Your task to perform on an android device: Clear all items from cart on walmart.com. Search for "macbook" on walmart.com, select the first entry, add it to the cart, then select checkout. Image 0: 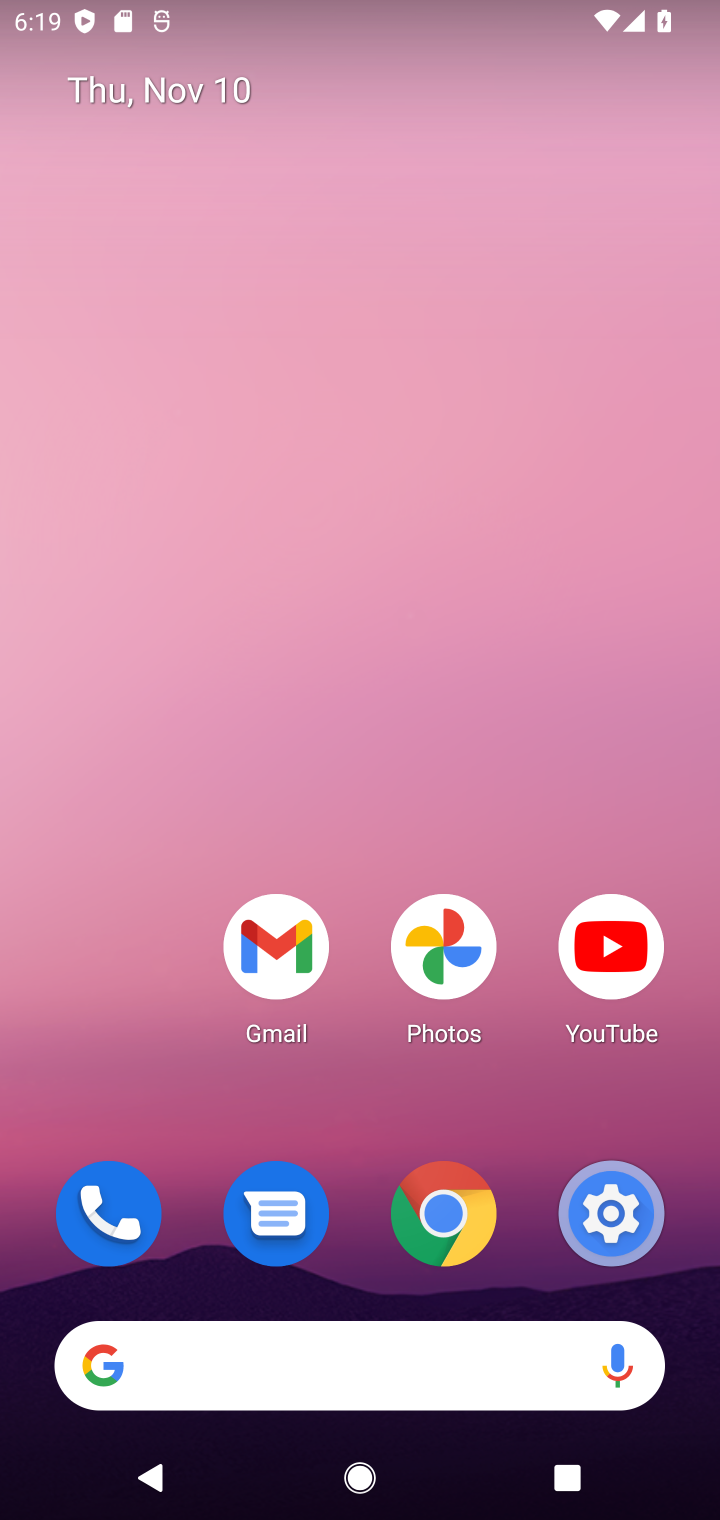
Step 0: drag from (476, 1363) to (584, 154)
Your task to perform on an android device: Clear all items from cart on walmart.com. Search for "macbook" on walmart.com, select the first entry, add it to the cart, then select checkout. Image 1: 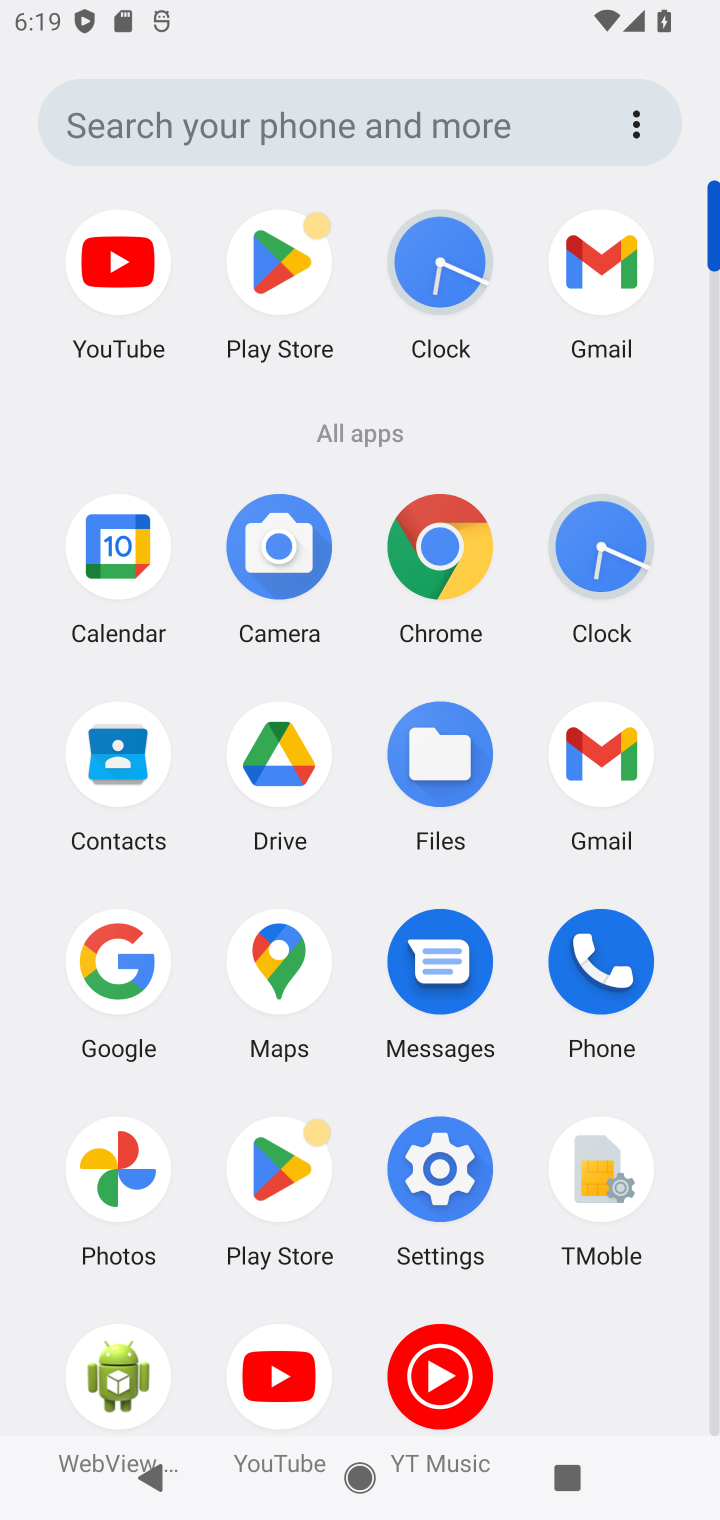
Step 1: click (429, 550)
Your task to perform on an android device: Clear all items from cart on walmart.com. Search for "macbook" on walmart.com, select the first entry, add it to the cart, then select checkout. Image 2: 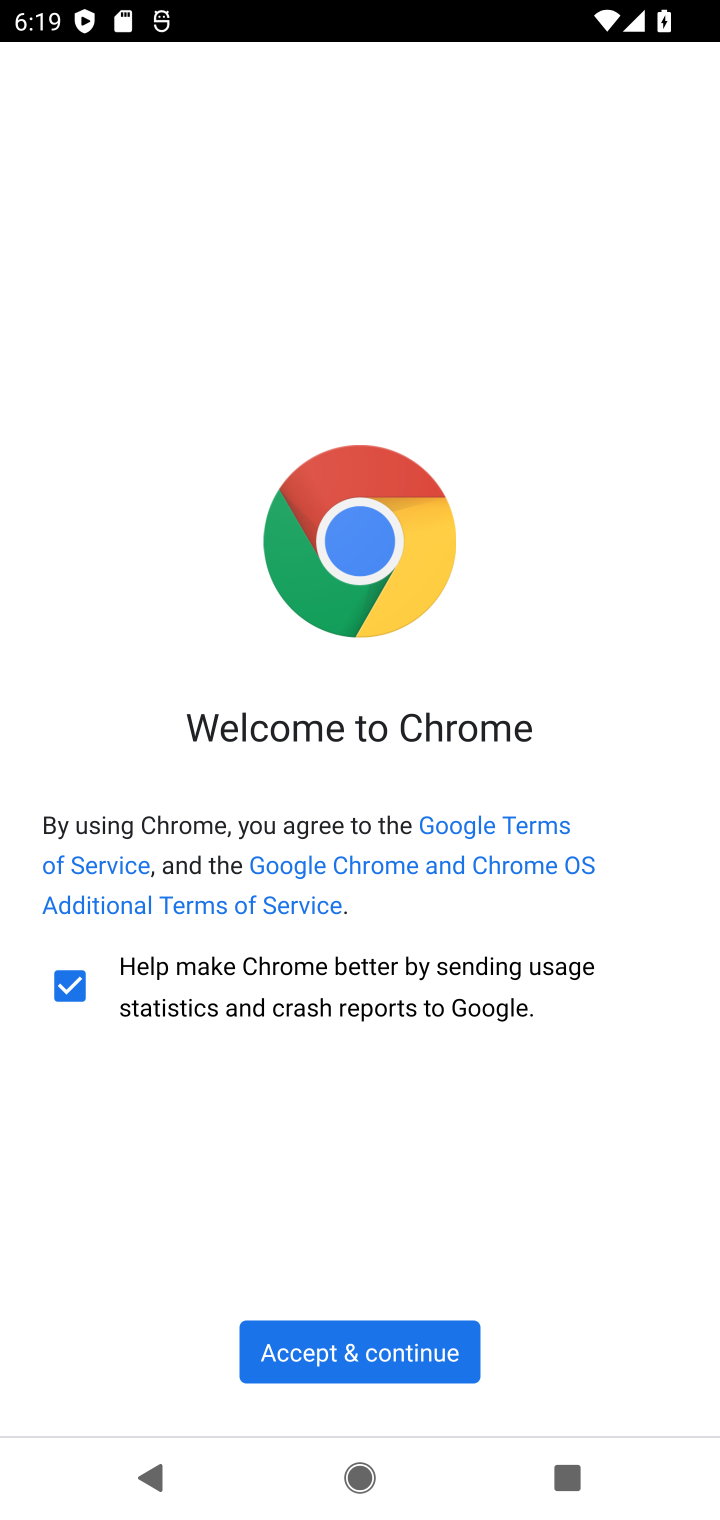
Step 2: click (347, 1358)
Your task to perform on an android device: Clear all items from cart on walmart.com. Search for "macbook" on walmart.com, select the first entry, add it to the cart, then select checkout. Image 3: 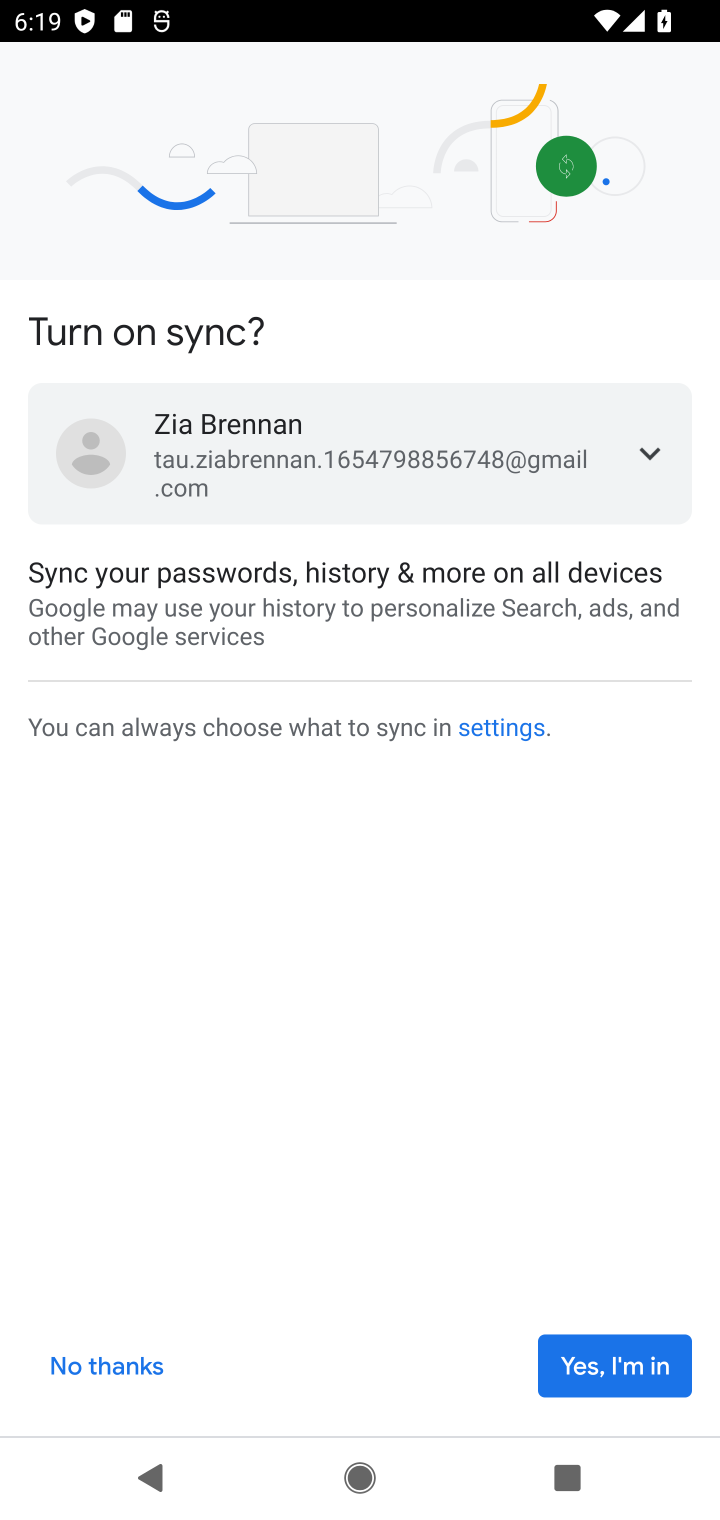
Step 3: click (653, 1369)
Your task to perform on an android device: Clear all items from cart on walmart.com. Search for "macbook" on walmart.com, select the first entry, add it to the cart, then select checkout. Image 4: 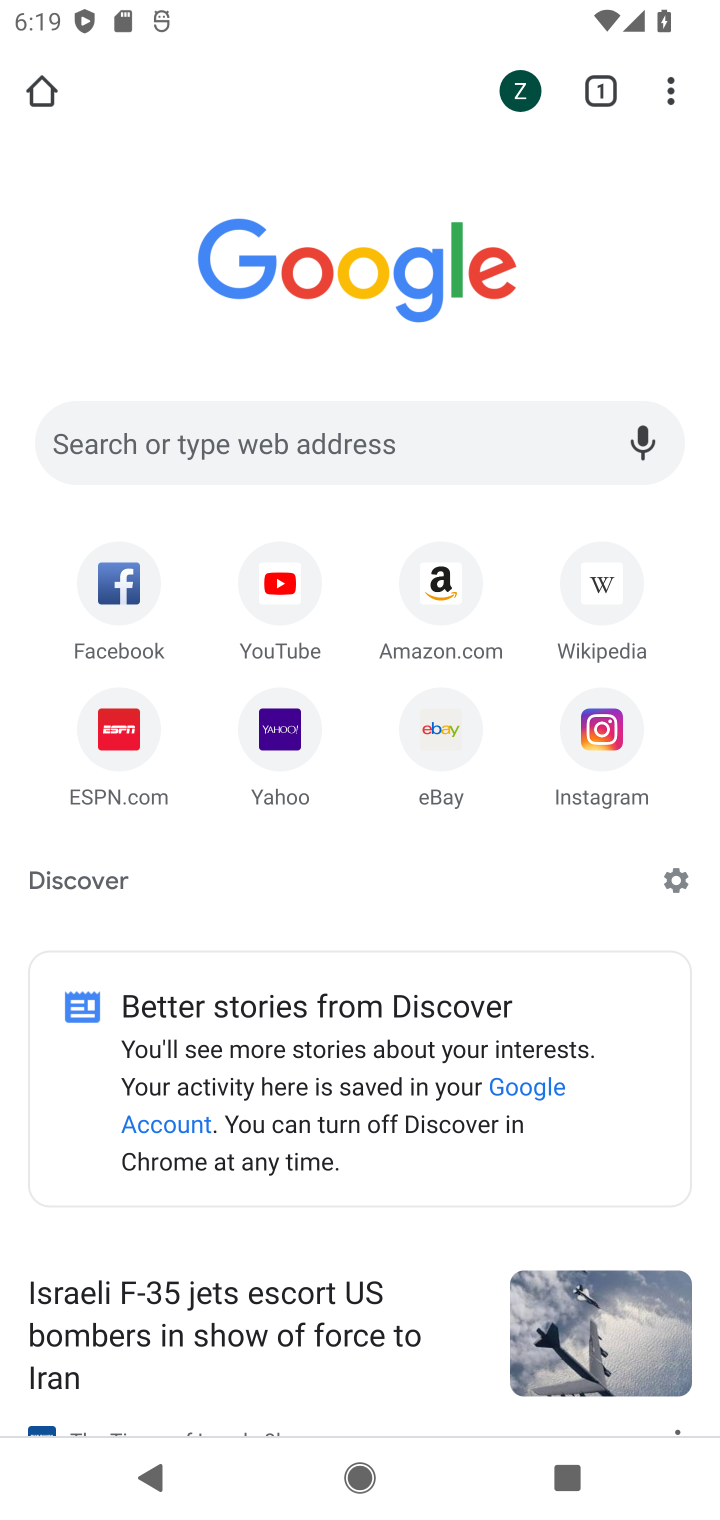
Step 4: click (403, 439)
Your task to perform on an android device: Clear all items from cart on walmart.com. Search for "macbook" on walmart.com, select the first entry, add it to the cart, then select checkout. Image 5: 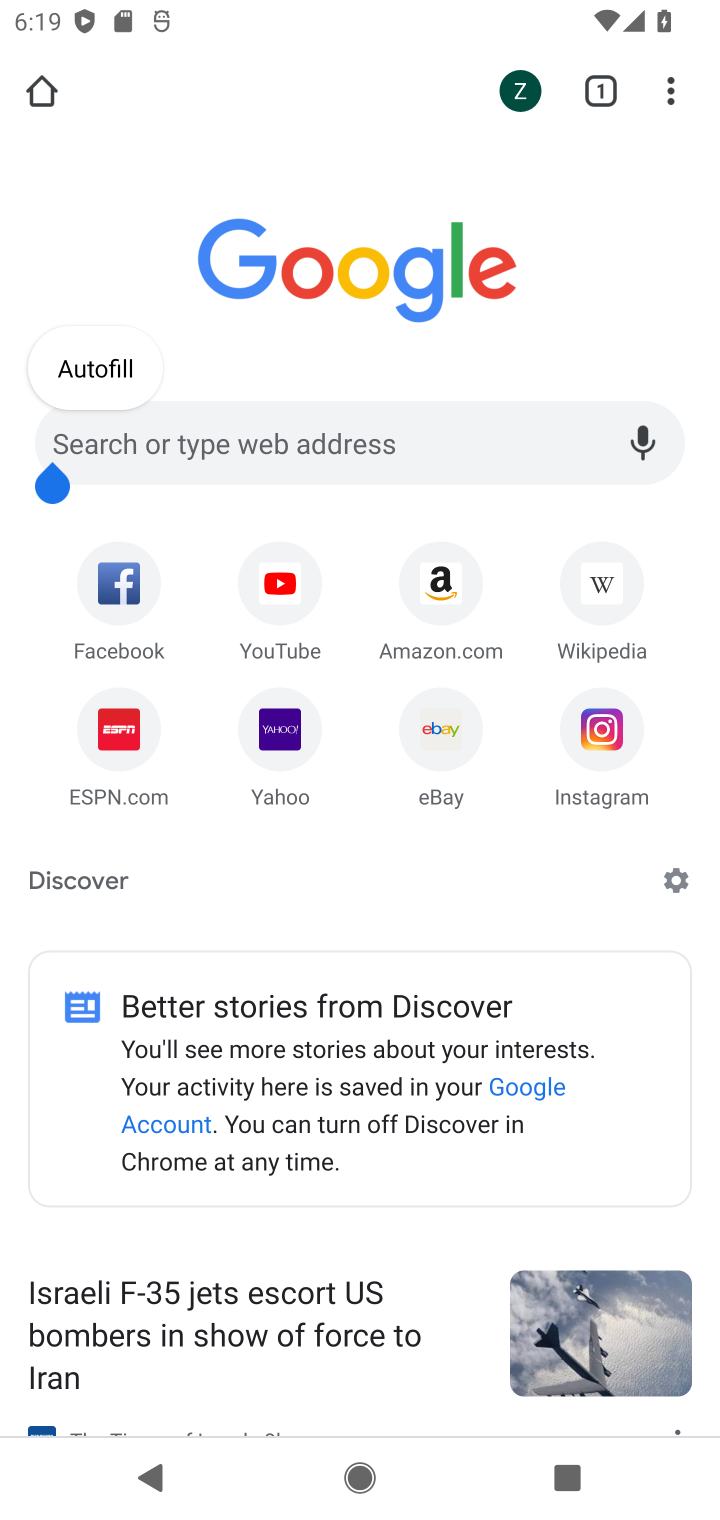
Step 5: click (403, 439)
Your task to perform on an android device: Clear all items from cart on walmart.com. Search for "macbook" on walmart.com, select the first entry, add it to the cart, then select checkout. Image 6: 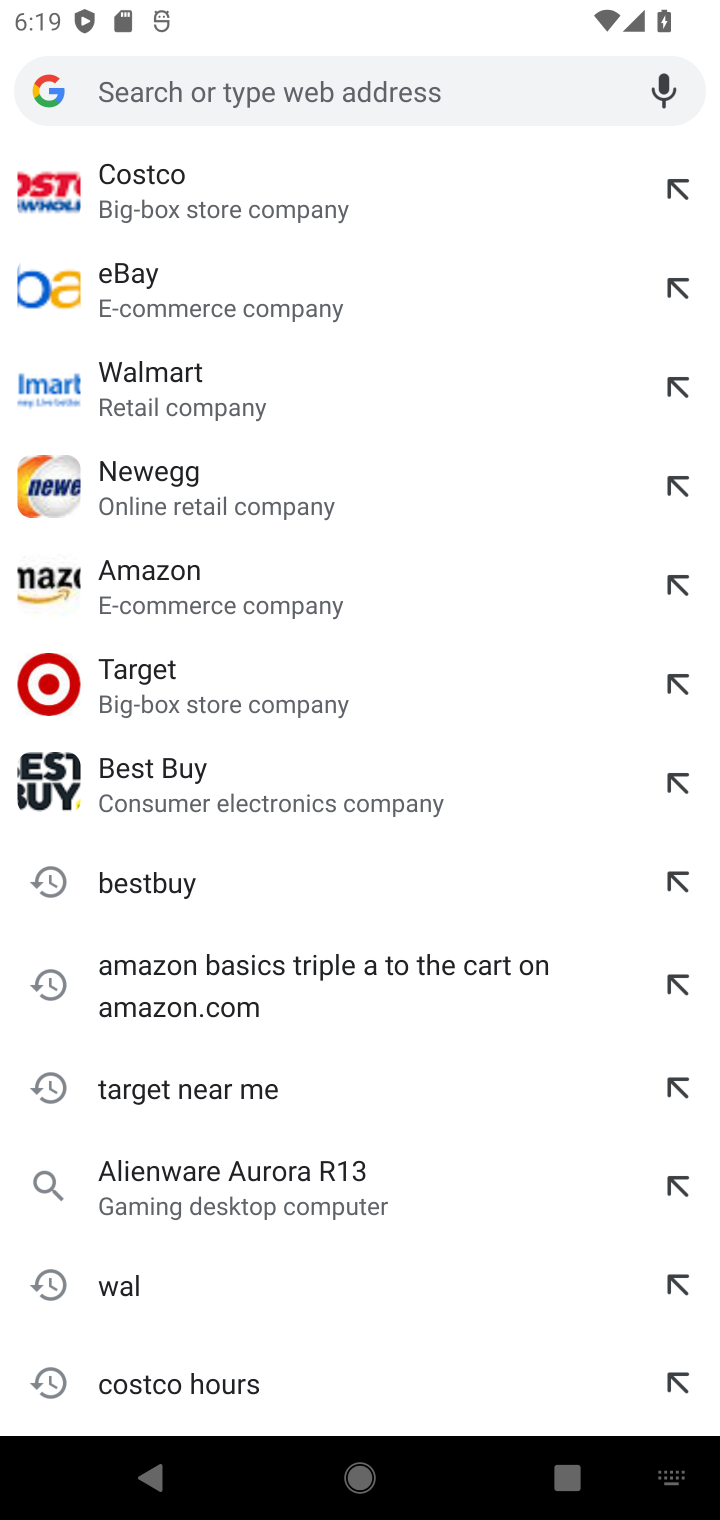
Step 6: type " walmart.com"
Your task to perform on an android device: Clear all items from cart on walmart.com. Search for "macbook" on walmart.com, select the first entry, add it to the cart, then select checkout. Image 7: 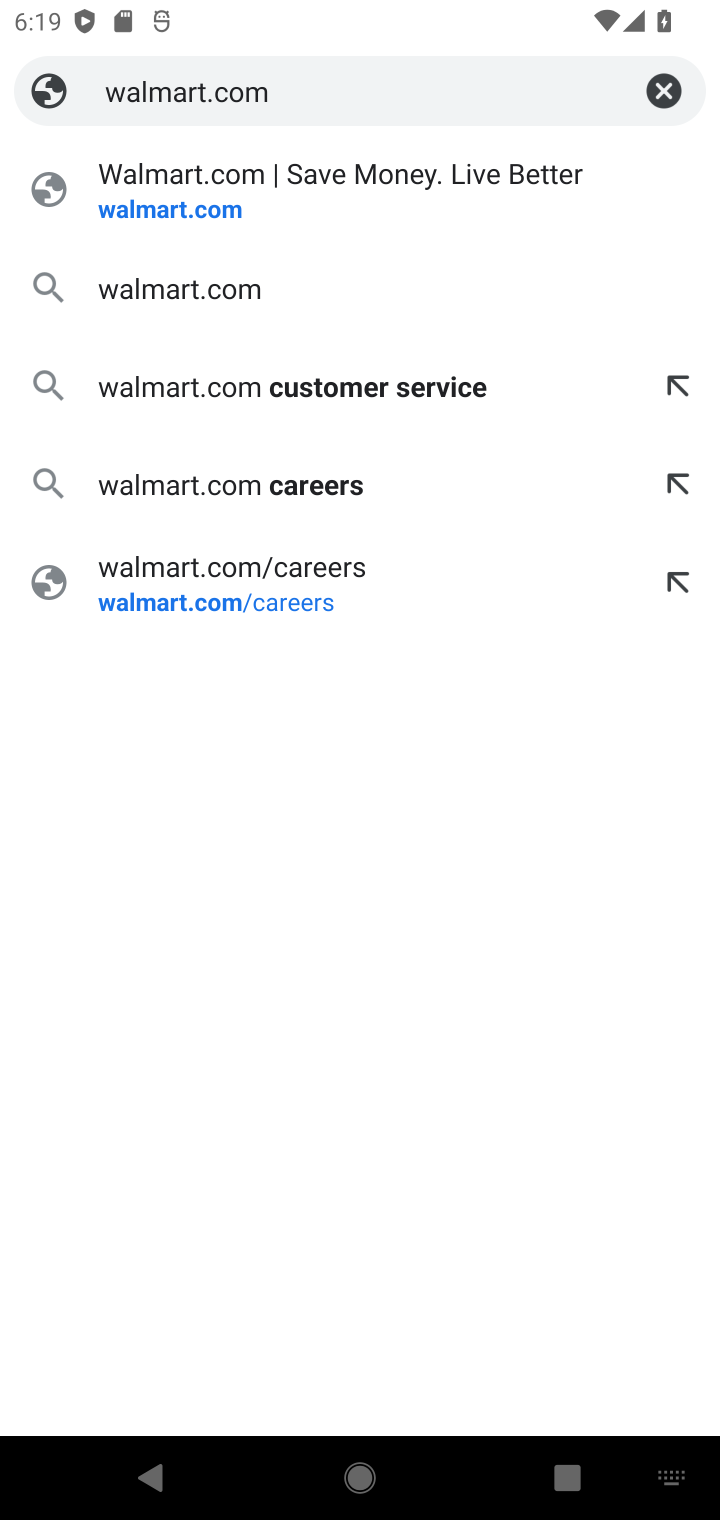
Step 7: click (140, 216)
Your task to perform on an android device: Clear all items from cart on walmart.com. Search for "macbook" on walmart.com, select the first entry, add it to the cart, then select checkout. Image 8: 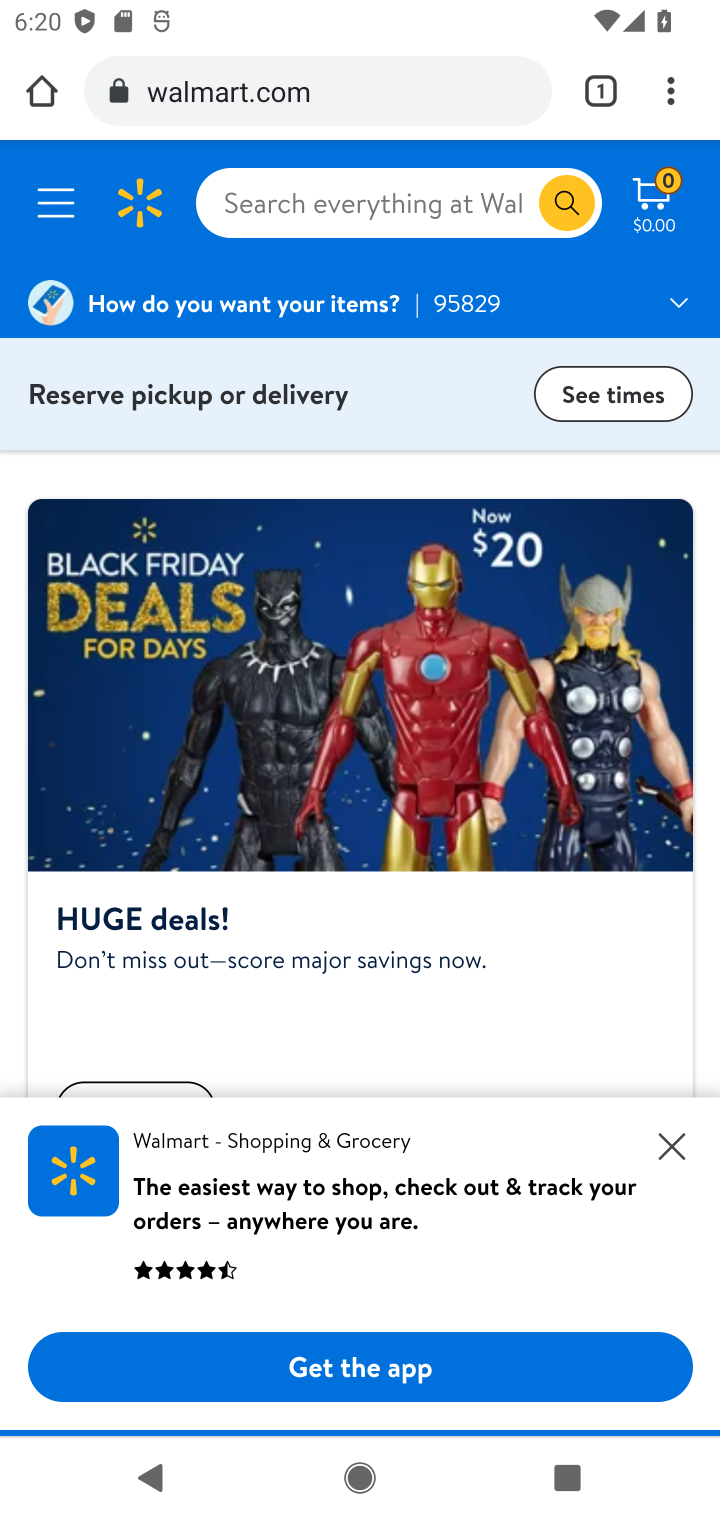
Step 8: click (657, 181)
Your task to perform on an android device: Clear all items from cart on walmart.com. Search for "macbook" on walmart.com, select the first entry, add it to the cart, then select checkout. Image 9: 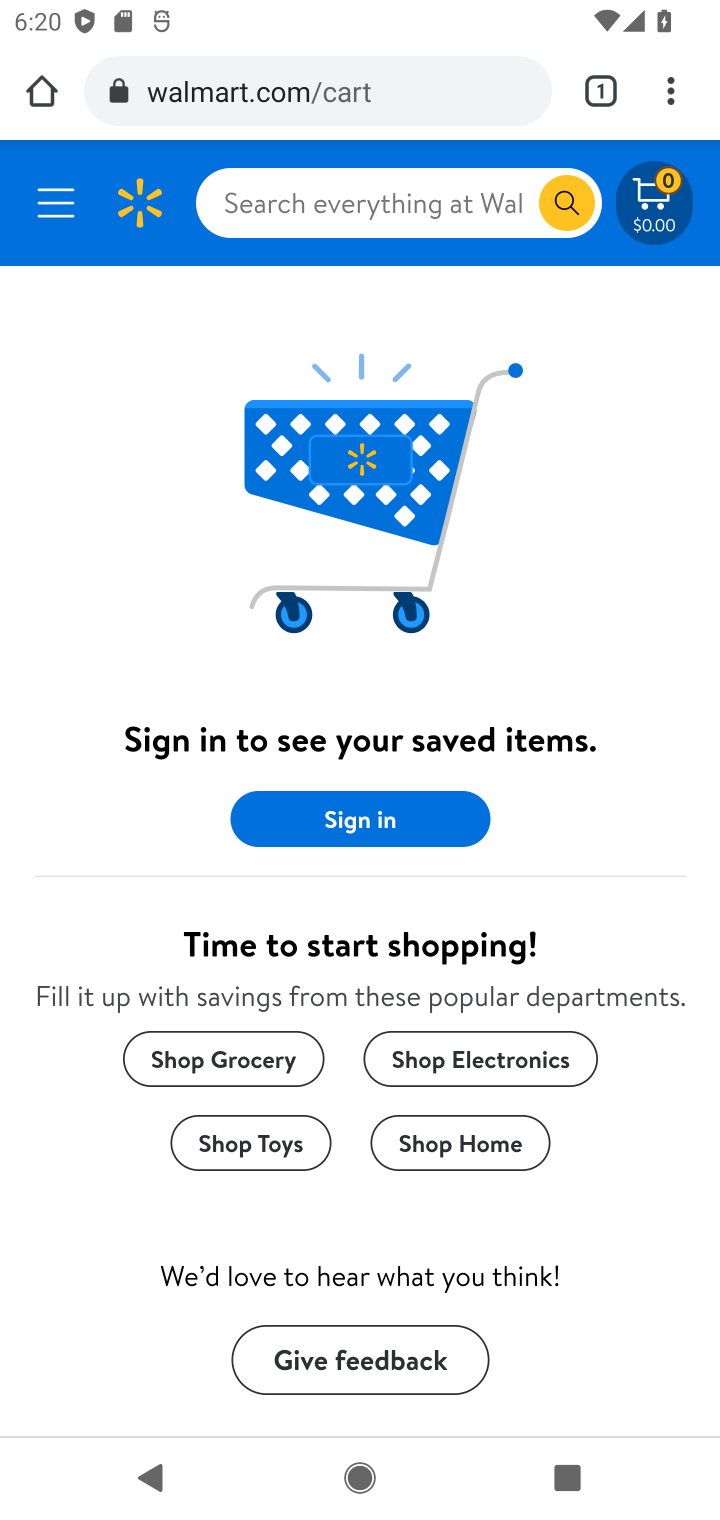
Step 9: press back button
Your task to perform on an android device: Clear all items from cart on walmart.com. Search for "macbook" on walmart.com, select the first entry, add it to the cart, then select checkout. Image 10: 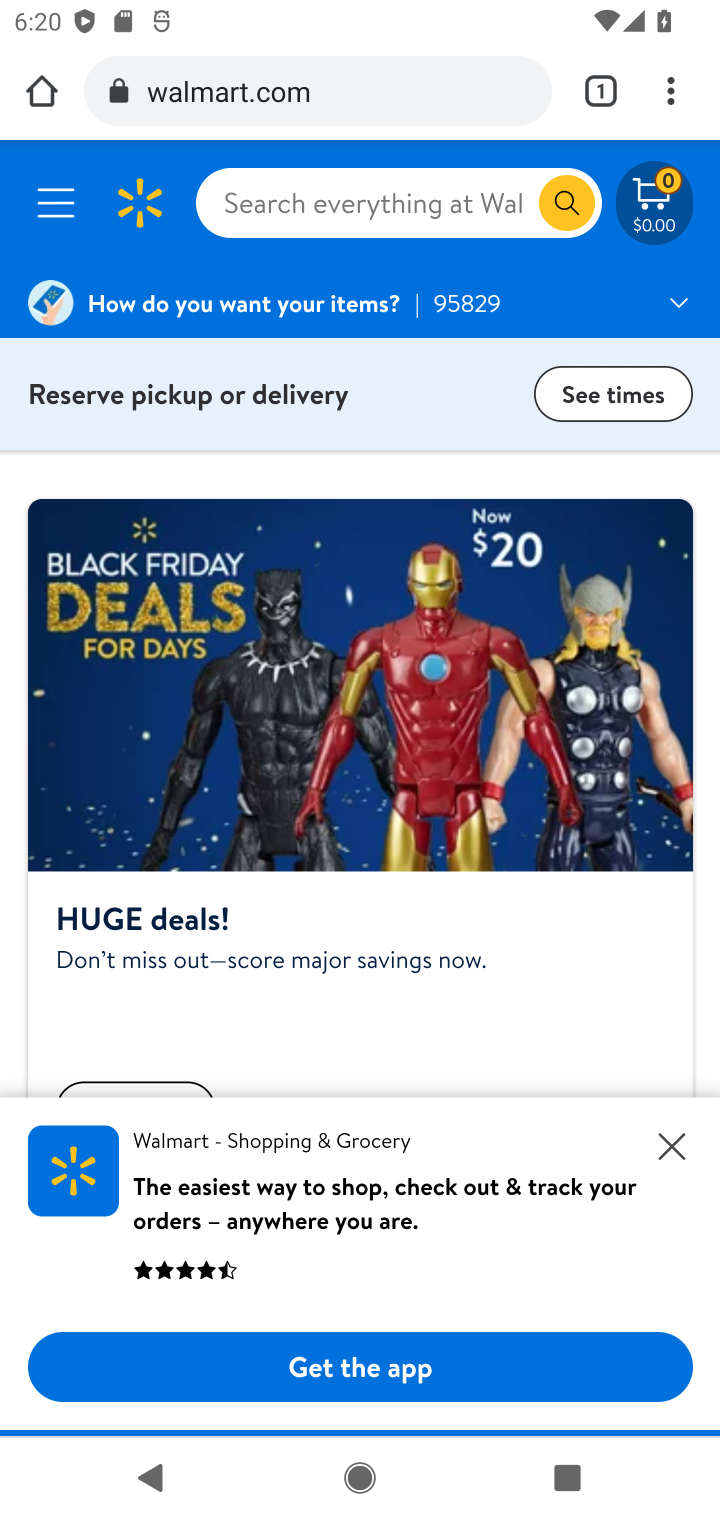
Step 10: click (321, 196)
Your task to perform on an android device: Clear all items from cart on walmart.com. Search for "macbook" on walmart.com, select the first entry, add it to the cart, then select checkout. Image 11: 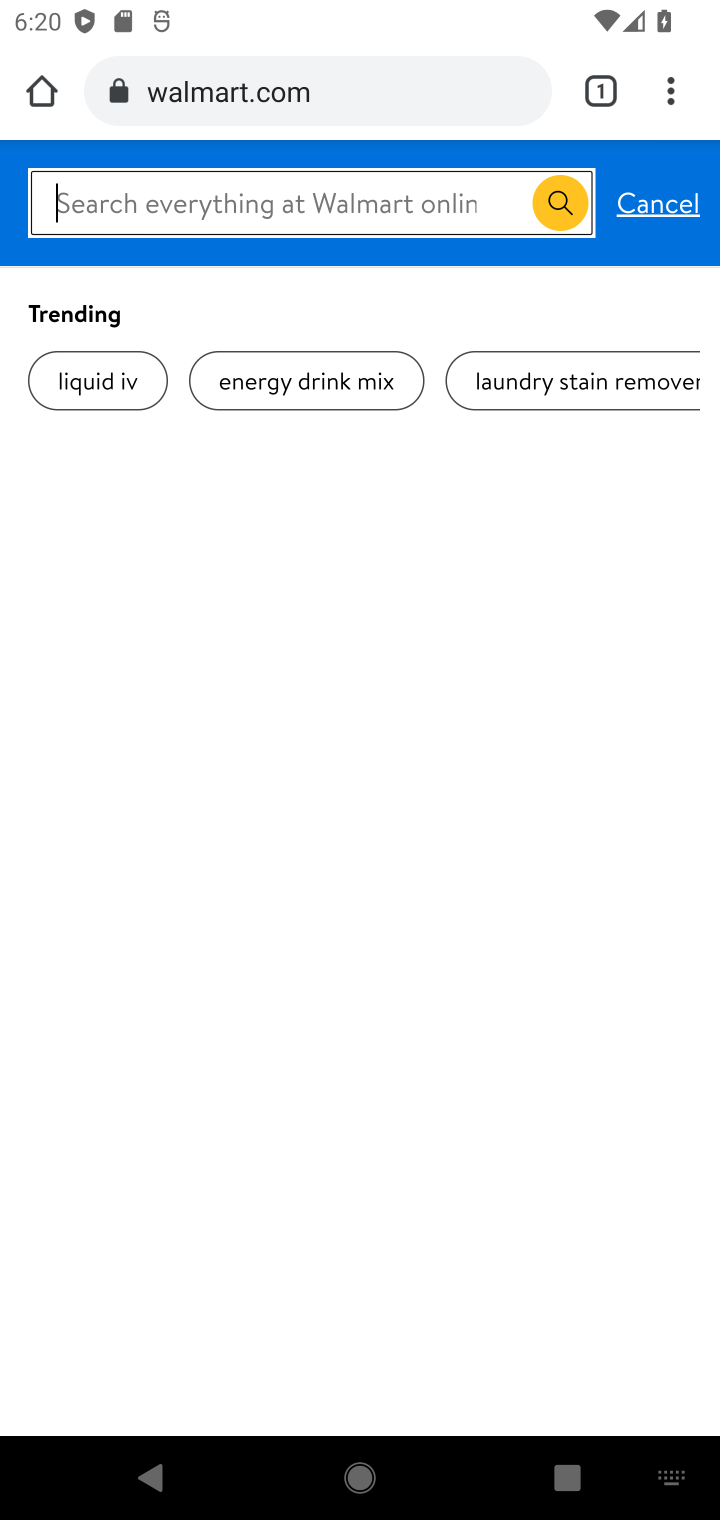
Step 11: type "macbook"
Your task to perform on an android device: Clear all items from cart on walmart.com. Search for "macbook" on walmart.com, select the first entry, add it to the cart, then select checkout. Image 12: 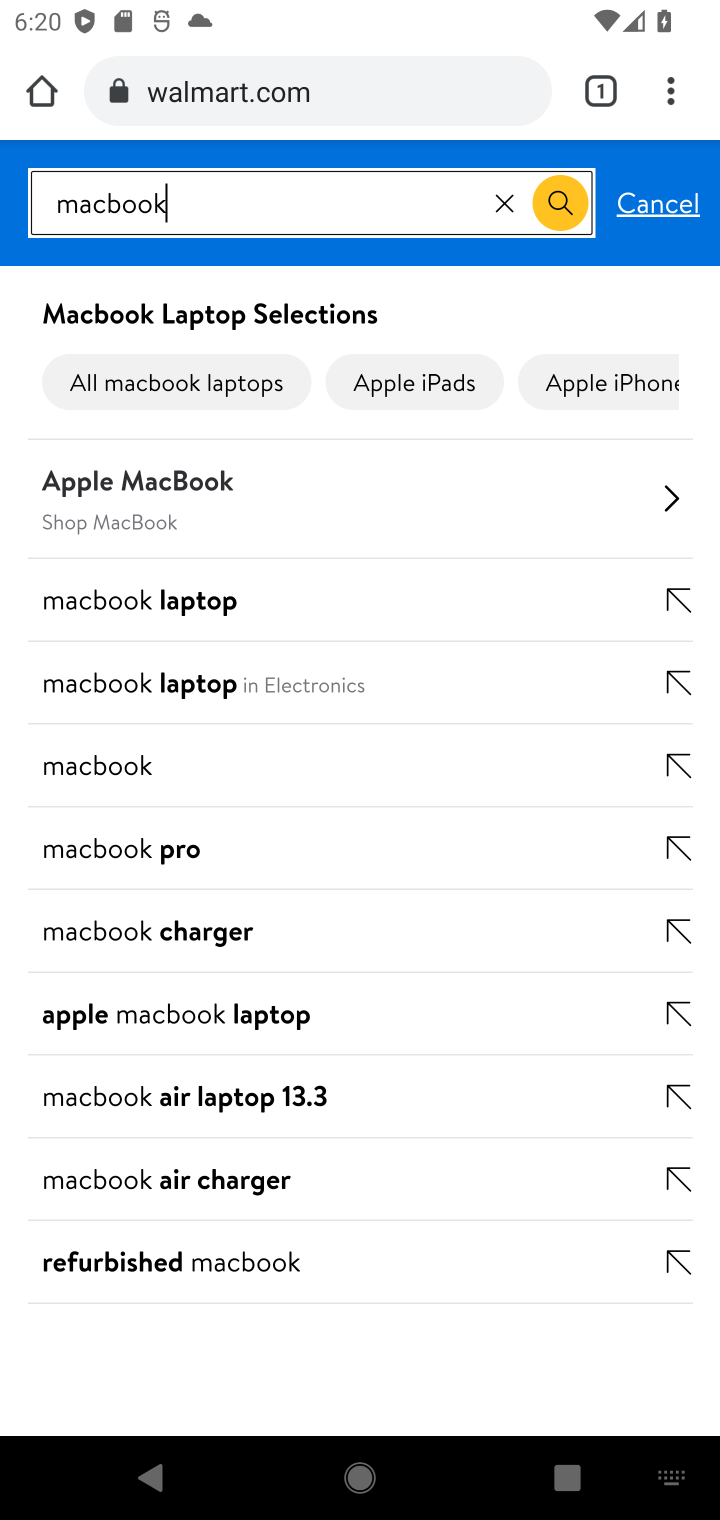
Step 12: click (567, 195)
Your task to perform on an android device: Clear all items from cart on walmart.com. Search for "macbook" on walmart.com, select the first entry, add it to the cart, then select checkout. Image 13: 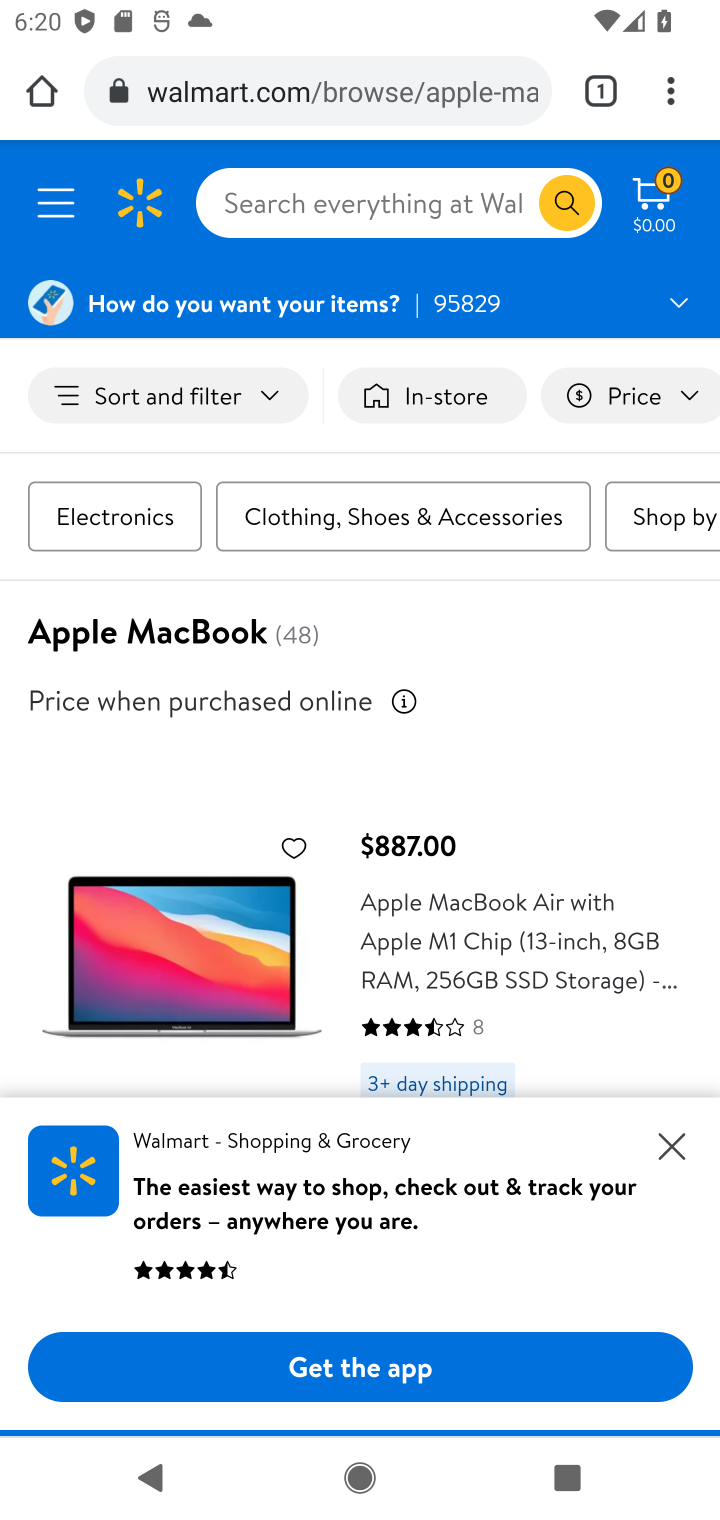
Step 13: drag from (570, 786) to (627, 425)
Your task to perform on an android device: Clear all items from cart on walmart.com. Search for "macbook" on walmart.com, select the first entry, add it to the cart, then select checkout. Image 14: 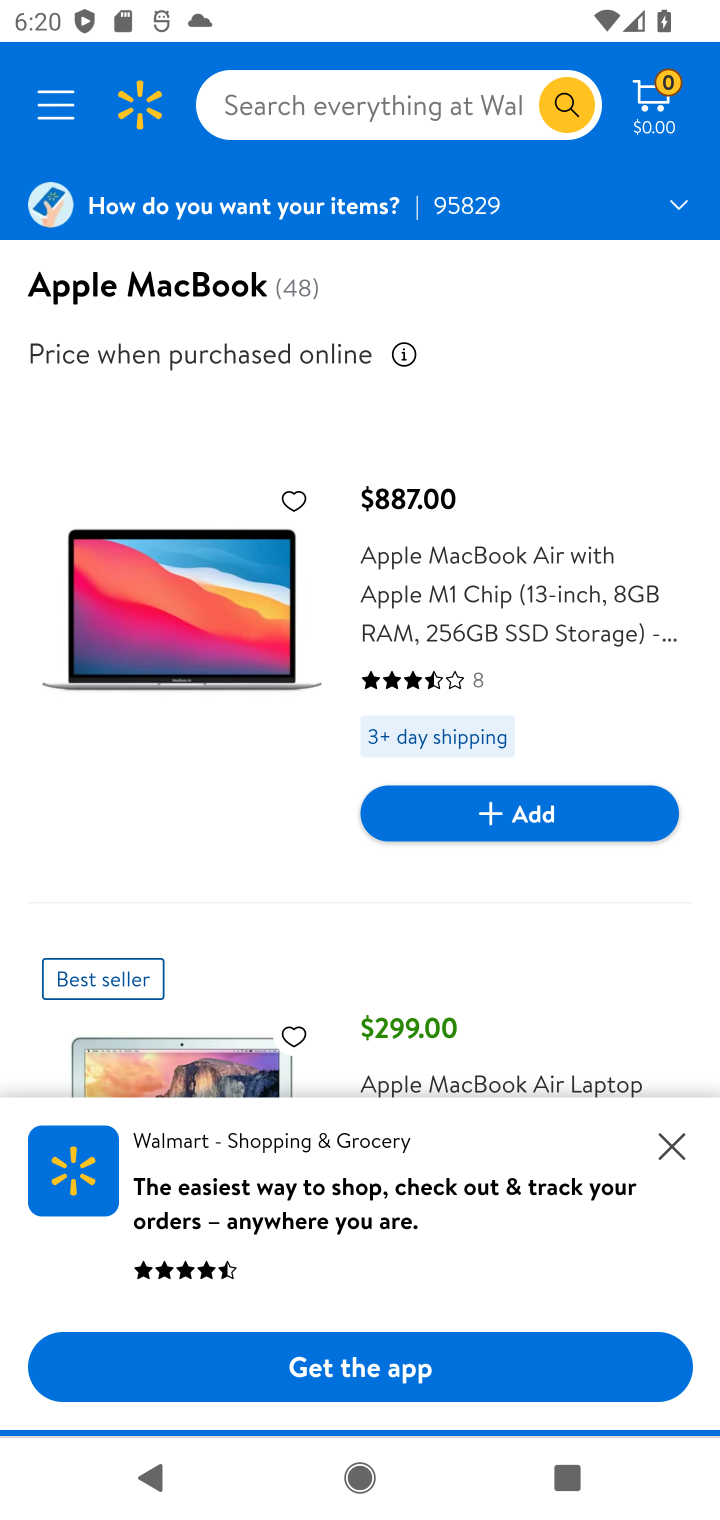
Step 14: click (260, 550)
Your task to perform on an android device: Clear all items from cart on walmart.com. Search for "macbook" on walmart.com, select the first entry, add it to the cart, then select checkout. Image 15: 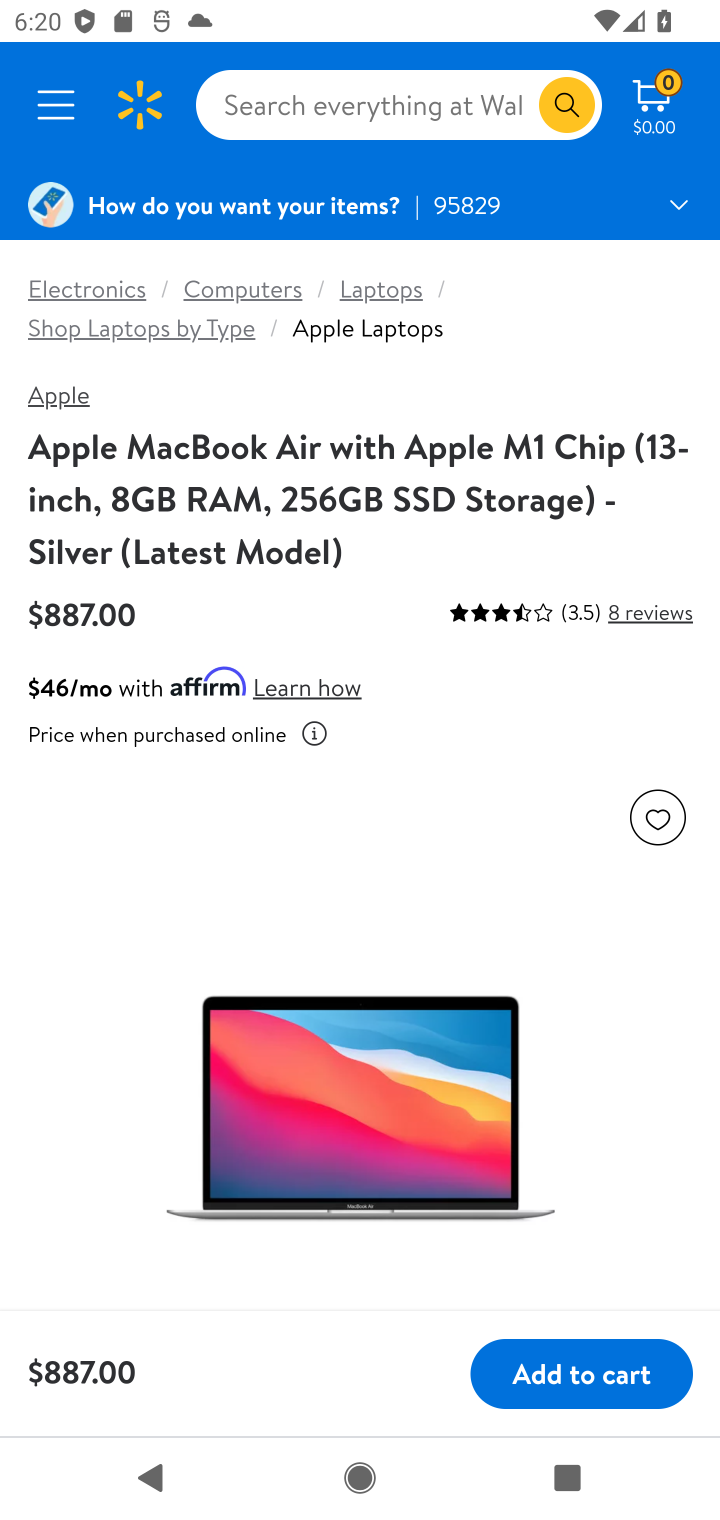
Step 15: click (618, 1386)
Your task to perform on an android device: Clear all items from cart on walmart.com. Search for "macbook" on walmart.com, select the first entry, add it to the cart, then select checkout. Image 16: 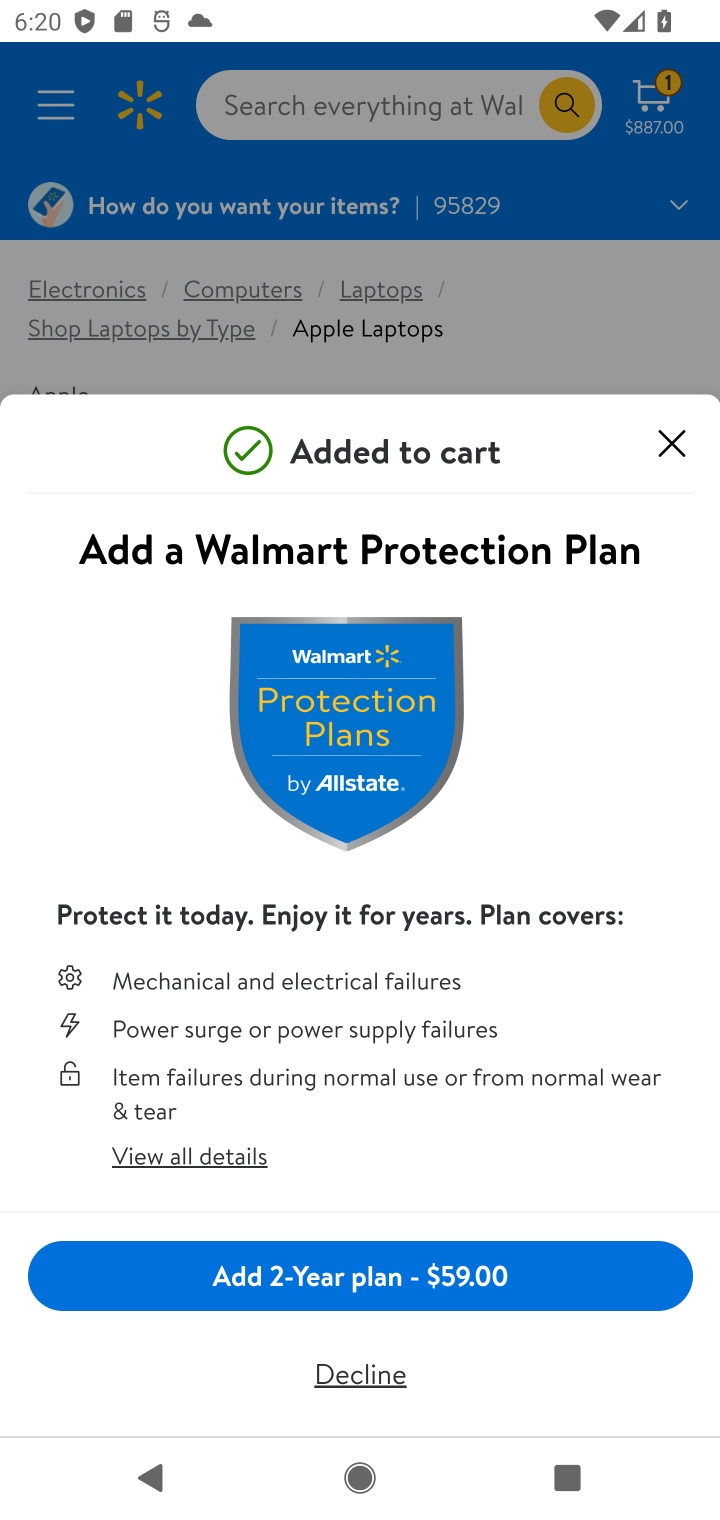
Step 16: task complete